Your task to perform on an android device: What's the news in French Guiana? Image 0: 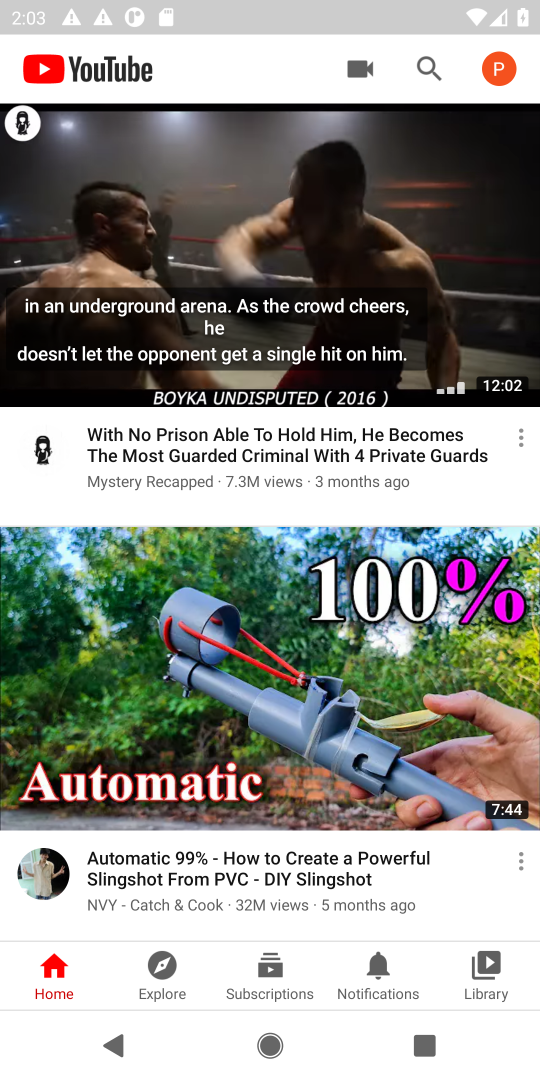
Step 0: press home button
Your task to perform on an android device: What's the news in French Guiana? Image 1: 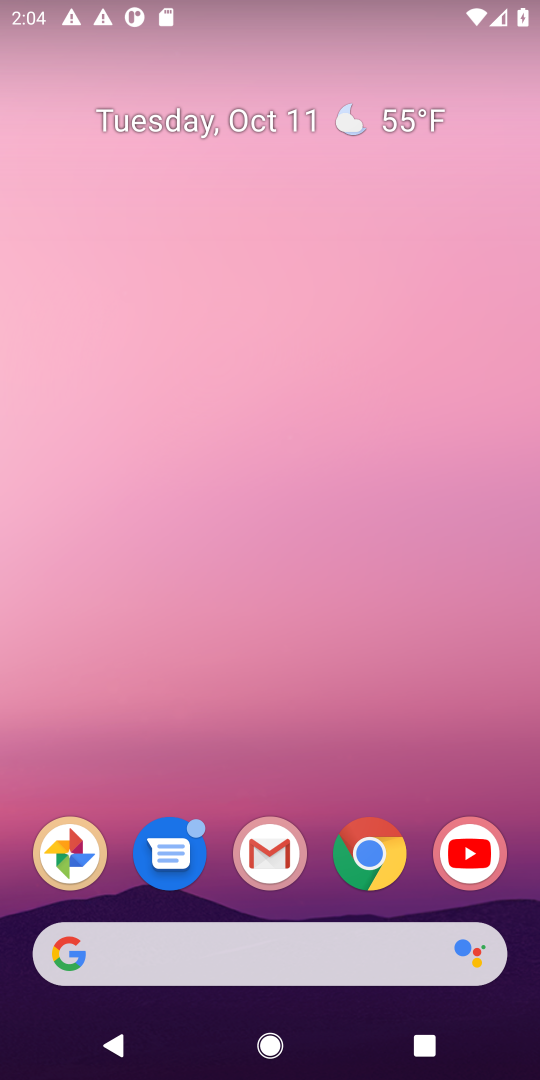
Step 1: drag from (157, 932) to (235, 260)
Your task to perform on an android device: What's the news in French Guiana? Image 2: 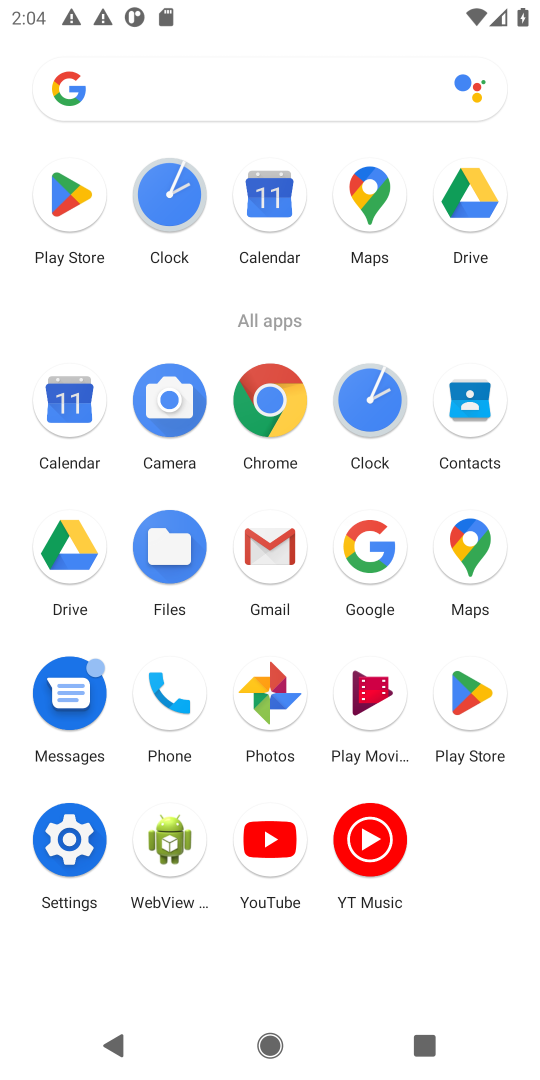
Step 2: click (378, 550)
Your task to perform on an android device: What's the news in French Guiana? Image 3: 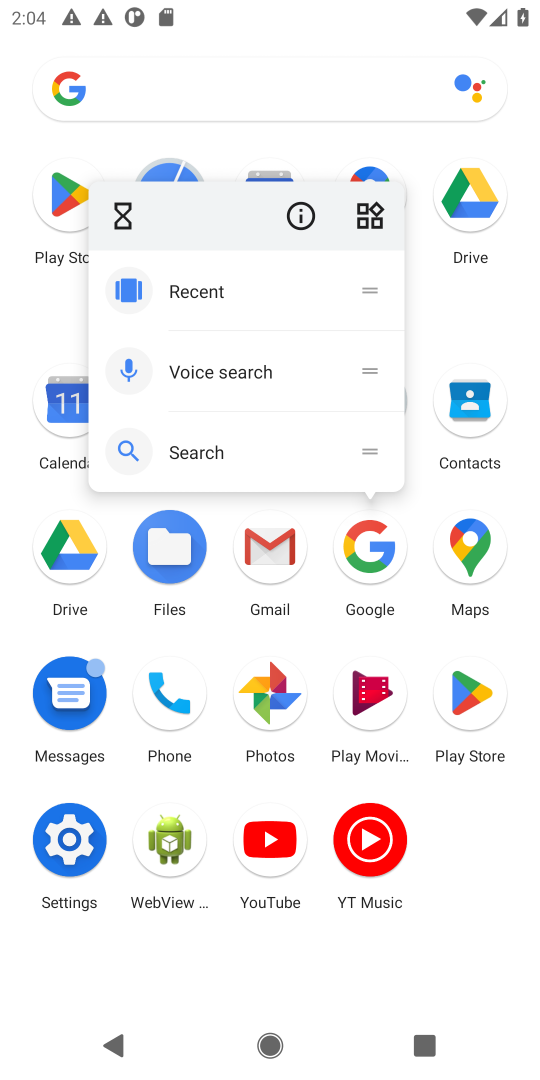
Step 3: click (356, 548)
Your task to perform on an android device: What's the news in French Guiana? Image 4: 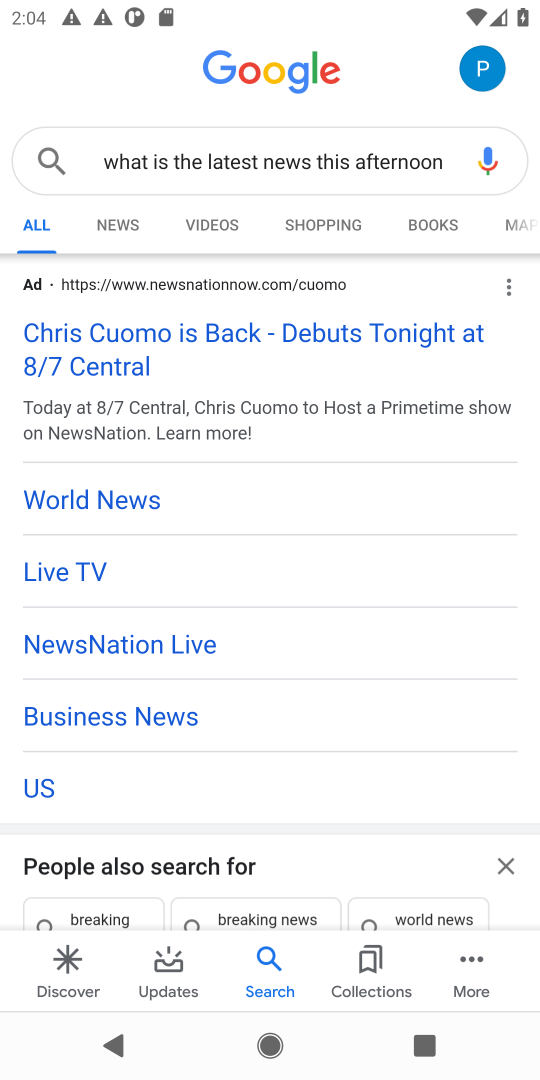
Step 4: click (180, 154)
Your task to perform on an android device: What's the news in French Guiana? Image 5: 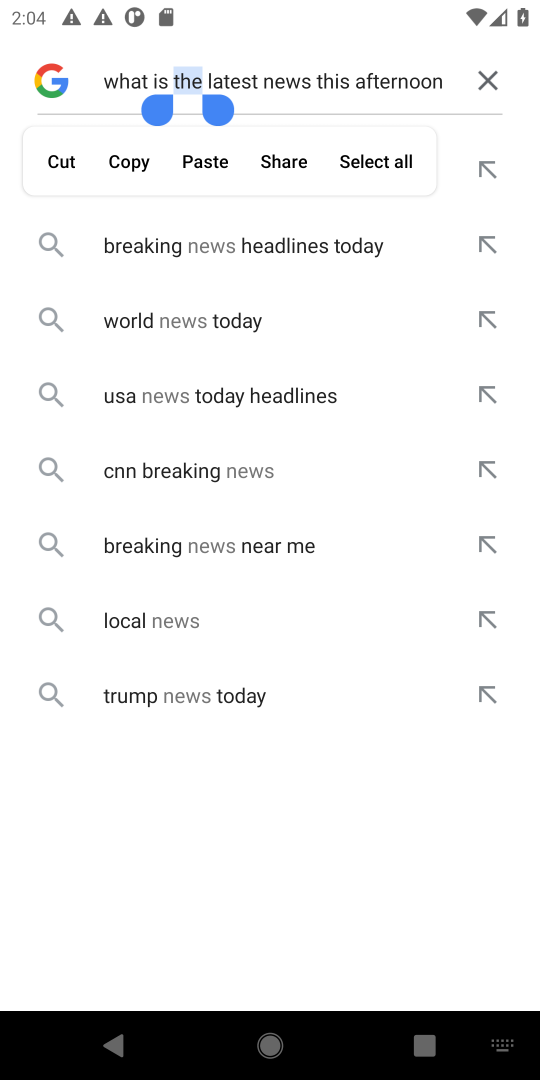
Step 5: click (485, 90)
Your task to perform on an android device: What's the news in French Guiana? Image 6: 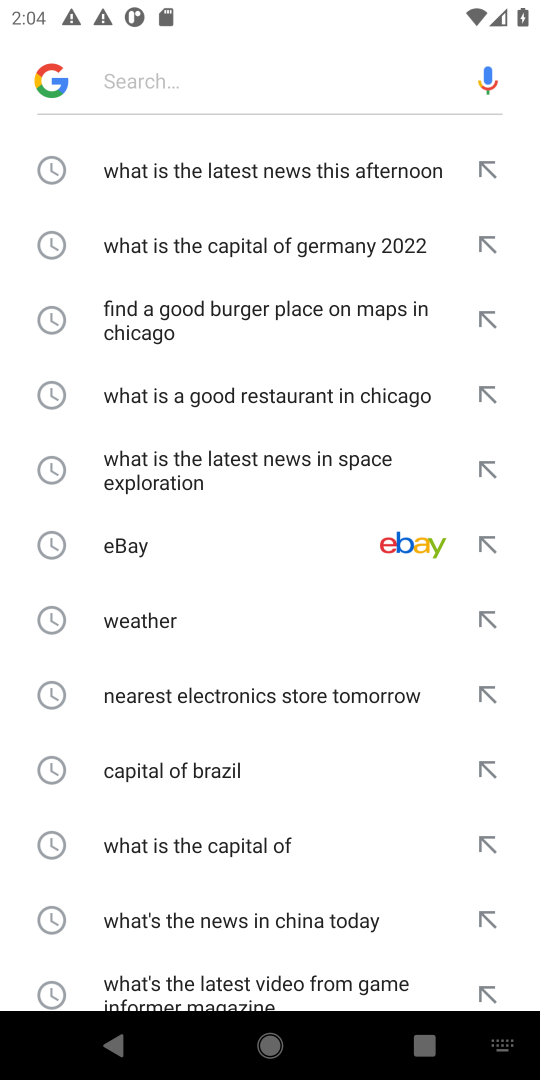
Step 6: type "What's the news in French Guiana?"
Your task to perform on an android device: What's the news in French Guiana? Image 7: 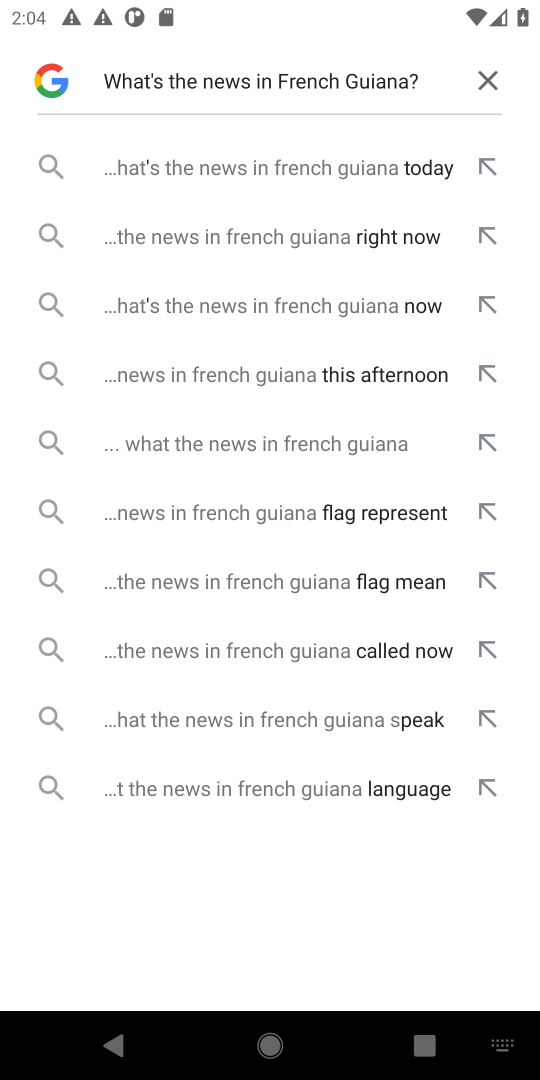
Step 7: click (246, 158)
Your task to perform on an android device: What's the news in French Guiana? Image 8: 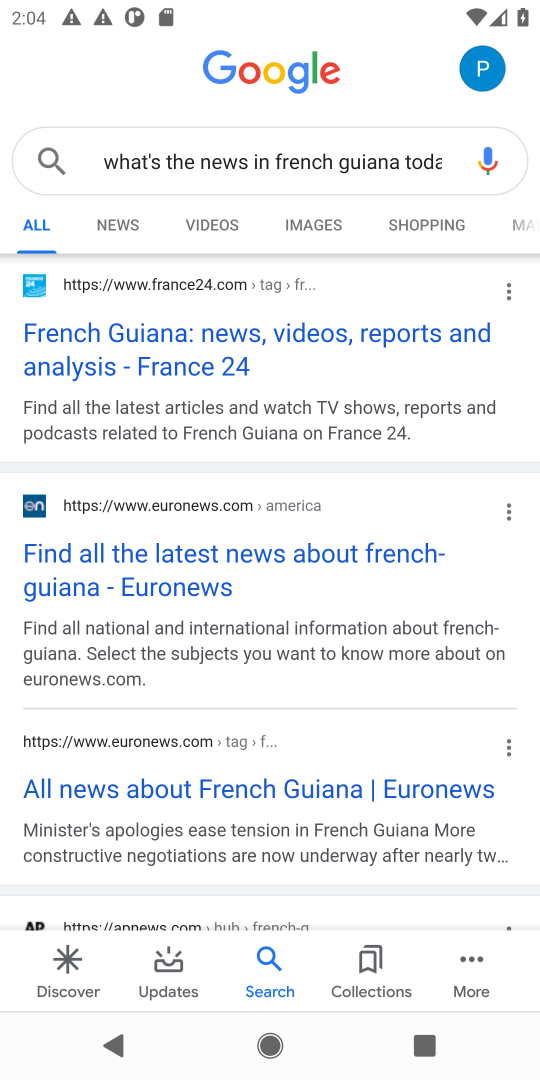
Step 8: click (340, 340)
Your task to perform on an android device: What's the news in French Guiana? Image 9: 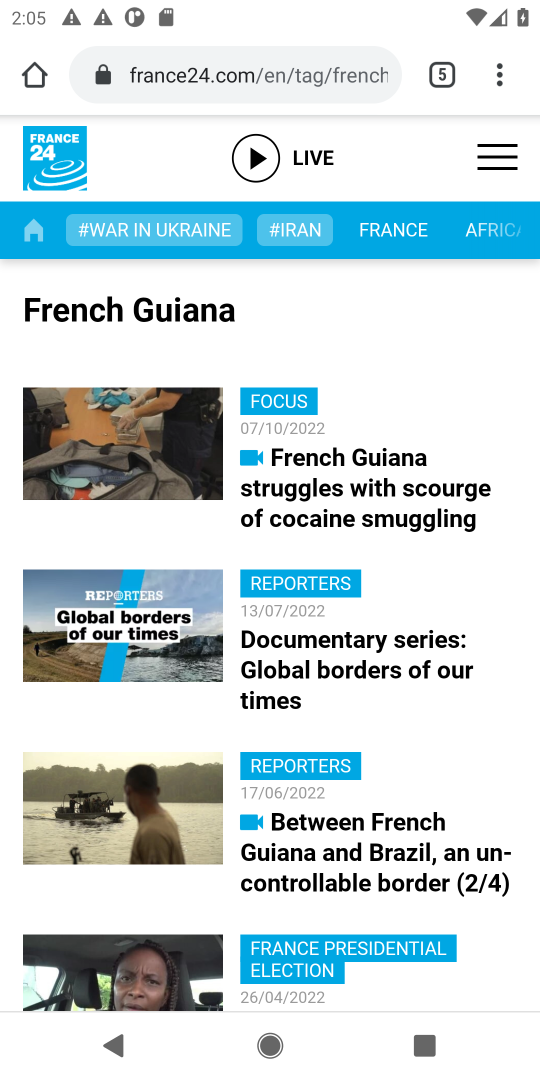
Step 9: task complete